Your task to perform on an android device: Go to battery settings Image 0: 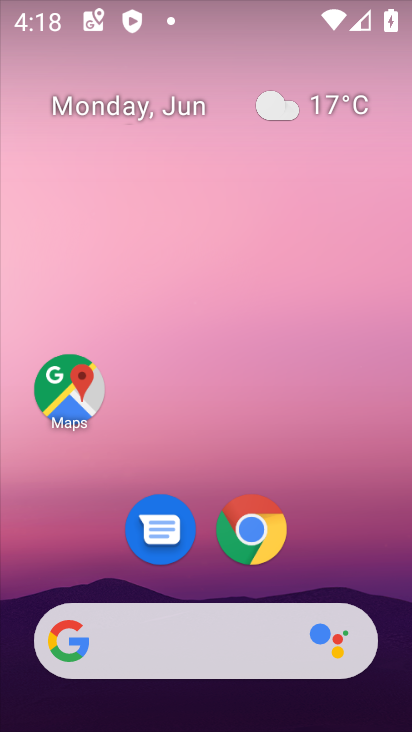
Step 0: drag from (341, 560) to (289, 10)
Your task to perform on an android device: Go to battery settings Image 1: 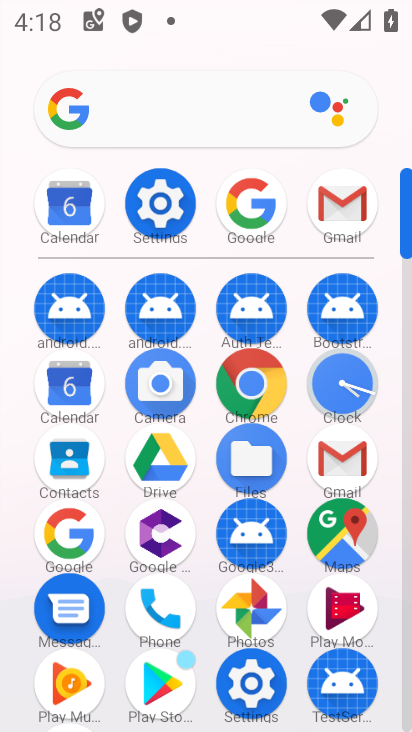
Step 1: click (159, 201)
Your task to perform on an android device: Go to battery settings Image 2: 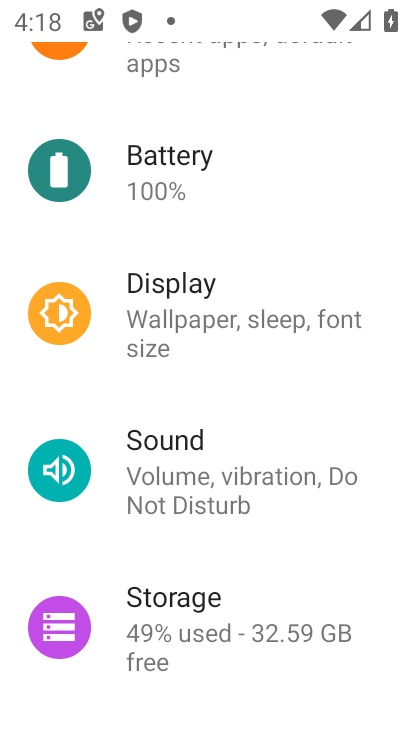
Step 2: click (235, 183)
Your task to perform on an android device: Go to battery settings Image 3: 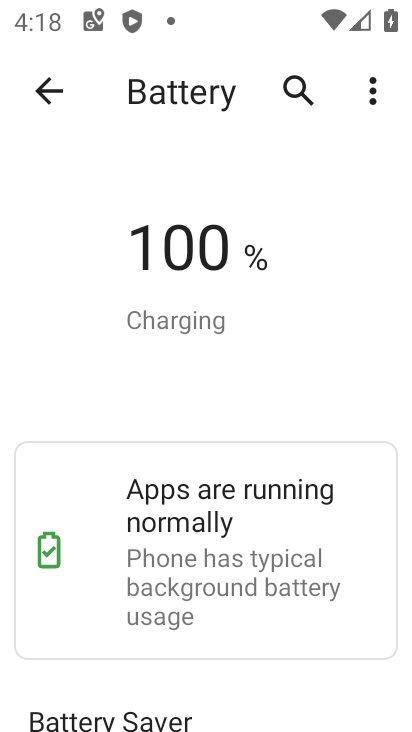
Step 3: task complete